Your task to perform on an android device: Open the calendar and show me this week's events? Image 0: 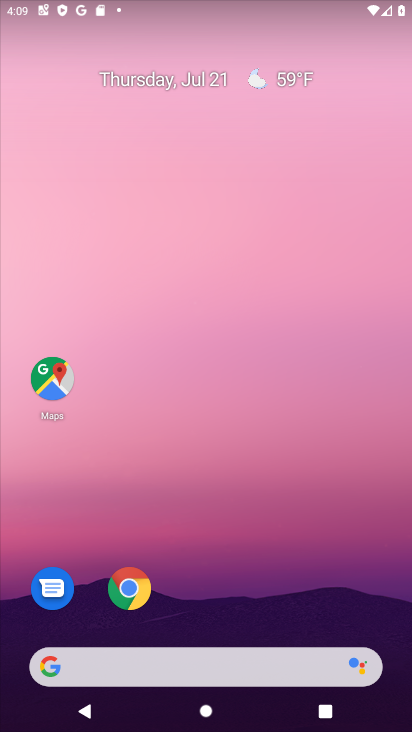
Step 0: drag from (242, 687) to (236, 108)
Your task to perform on an android device: Open the calendar and show me this week's events? Image 1: 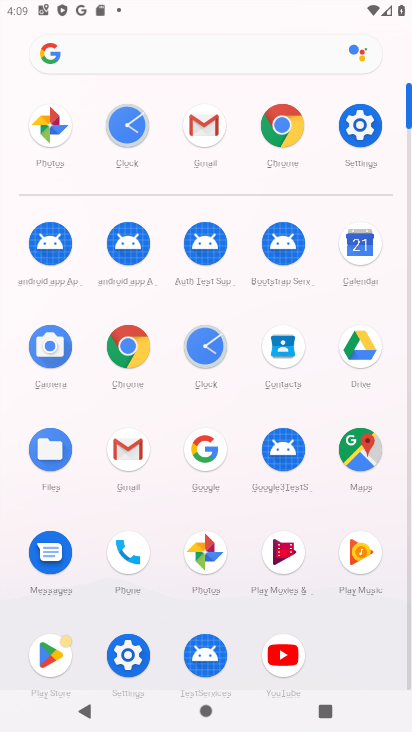
Step 1: click (356, 251)
Your task to perform on an android device: Open the calendar and show me this week's events? Image 2: 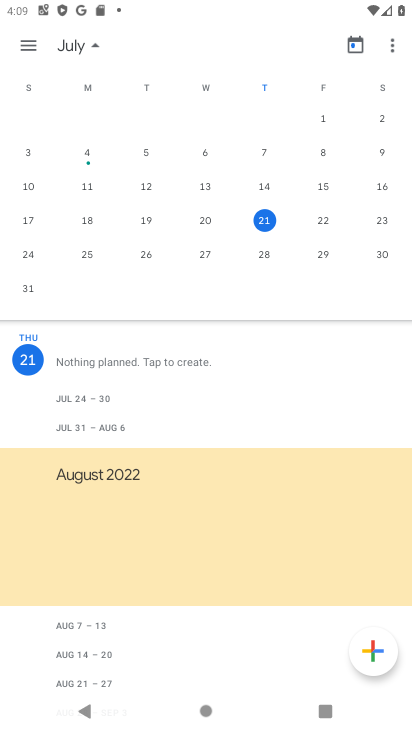
Step 2: click (26, 44)
Your task to perform on an android device: Open the calendar and show me this week's events? Image 3: 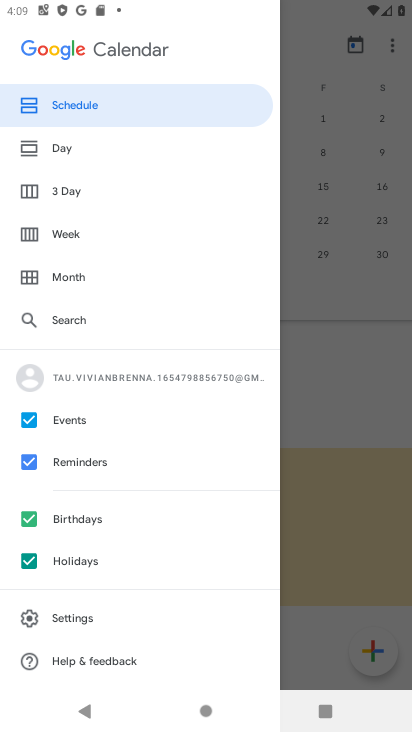
Step 3: click (31, 565)
Your task to perform on an android device: Open the calendar and show me this week's events? Image 4: 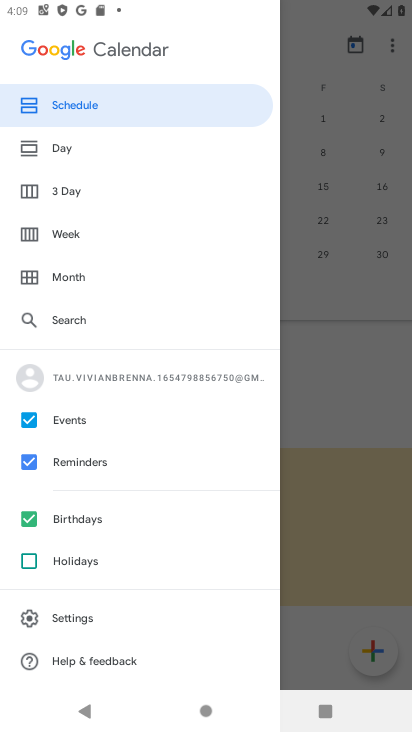
Step 4: click (28, 517)
Your task to perform on an android device: Open the calendar and show me this week's events? Image 5: 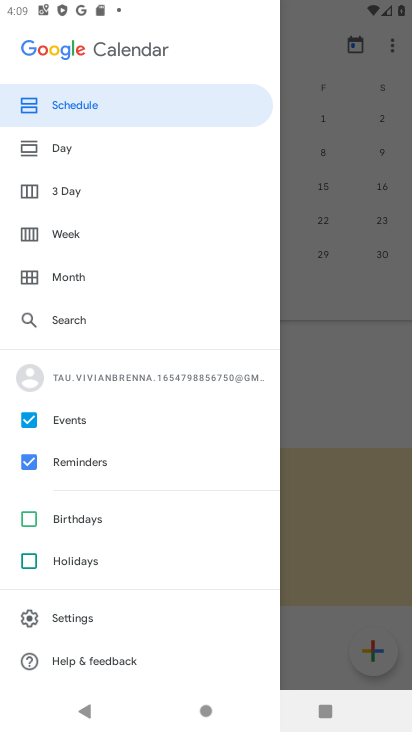
Step 5: click (28, 464)
Your task to perform on an android device: Open the calendar and show me this week's events? Image 6: 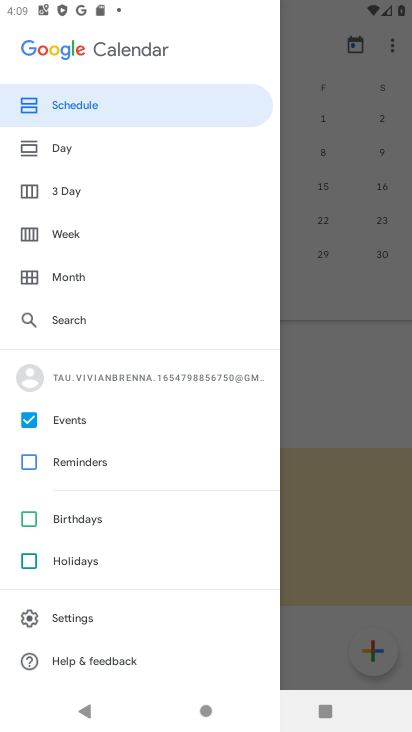
Step 6: click (68, 229)
Your task to perform on an android device: Open the calendar and show me this week's events? Image 7: 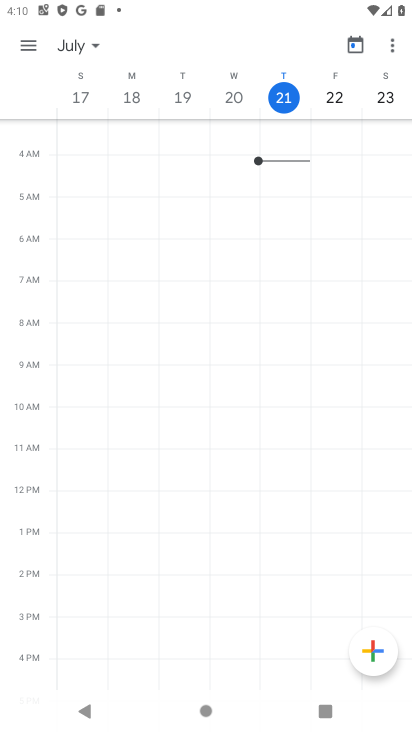
Step 7: task complete